Your task to perform on an android device: see creations saved in the google photos Image 0: 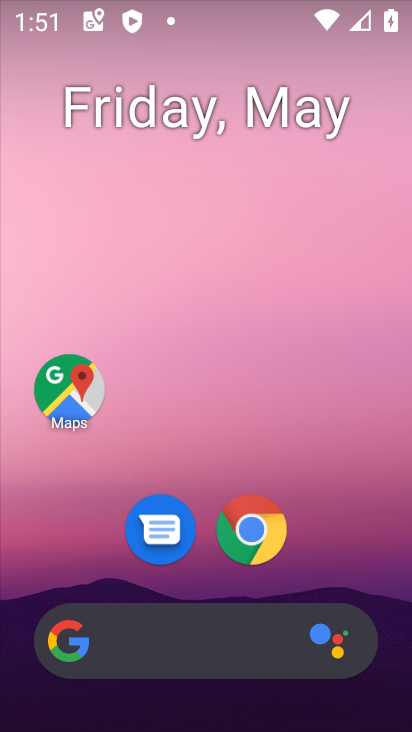
Step 0: drag from (378, 561) to (308, 189)
Your task to perform on an android device: see creations saved in the google photos Image 1: 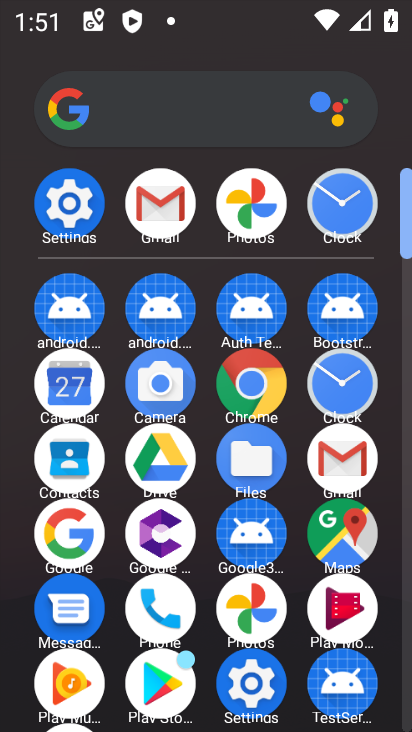
Step 1: click (249, 196)
Your task to perform on an android device: see creations saved in the google photos Image 2: 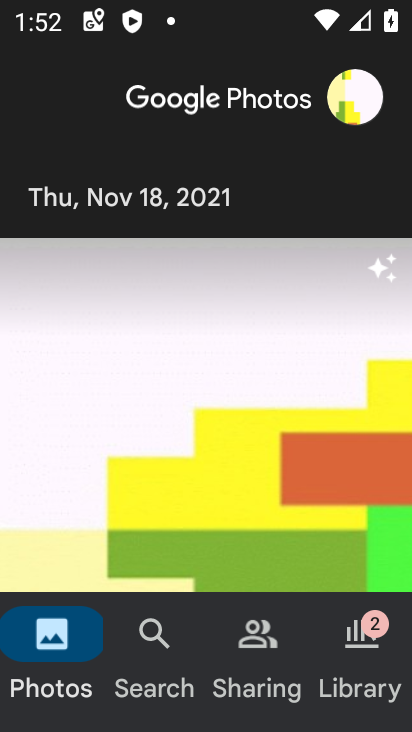
Step 2: click (373, 622)
Your task to perform on an android device: see creations saved in the google photos Image 3: 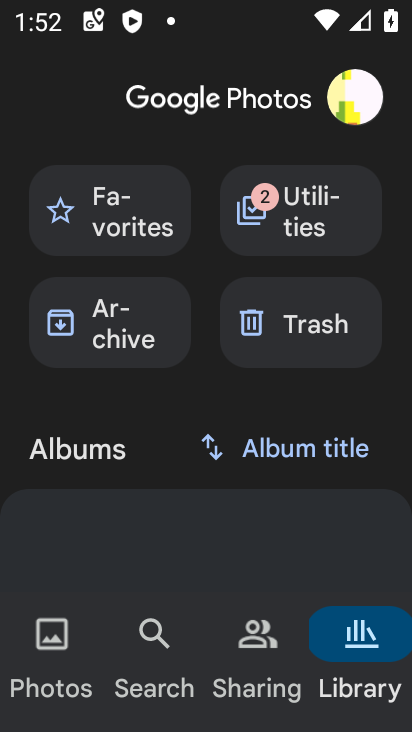
Step 3: click (131, 297)
Your task to perform on an android device: see creations saved in the google photos Image 4: 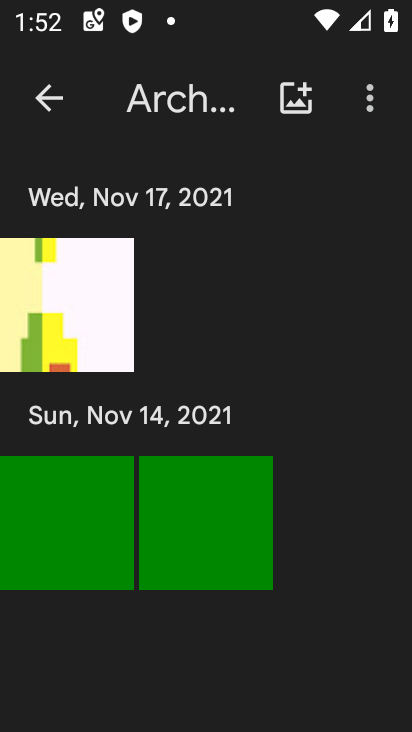
Step 4: task complete